Your task to perform on an android device: Go to Wikipedia Image 0: 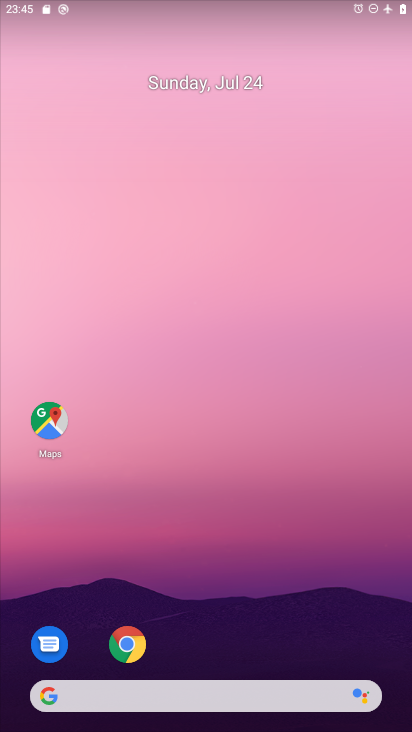
Step 0: click (128, 639)
Your task to perform on an android device: Go to Wikipedia Image 1: 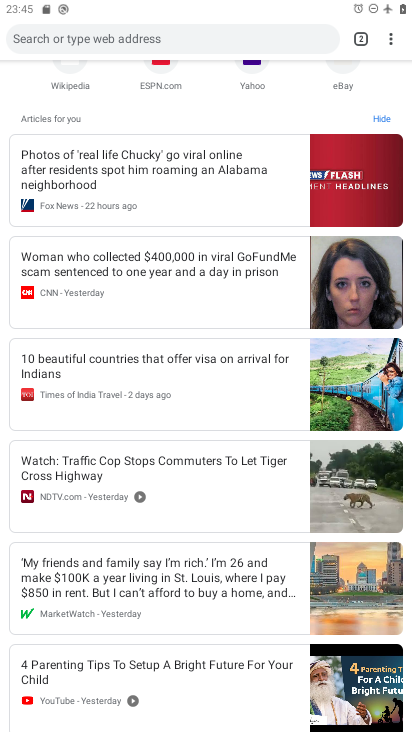
Step 1: click (164, 36)
Your task to perform on an android device: Go to Wikipedia Image 2: 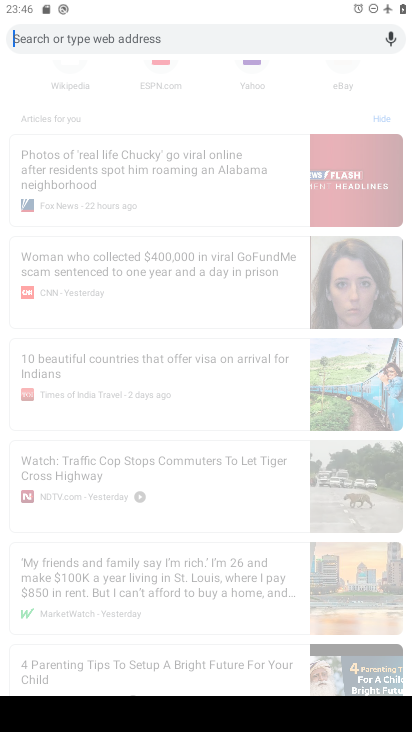
Step 2: type "wikipedia"
Your task to perform on an android device: Go to Wikipedia Image 3: 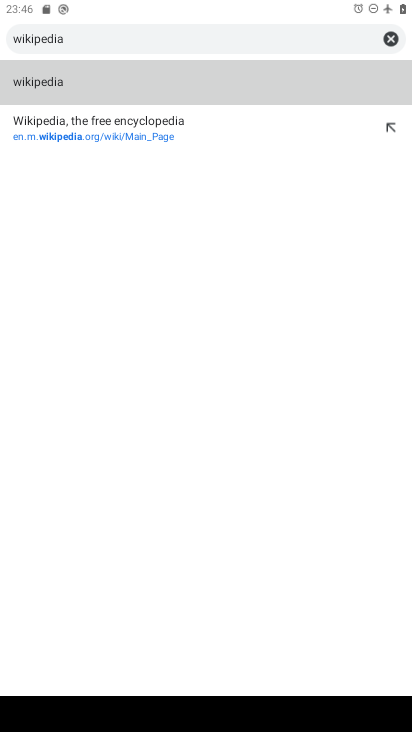
Step 3: click (52, 77)
Your task to perform on an android device: Go to Wikipedia Image 4: 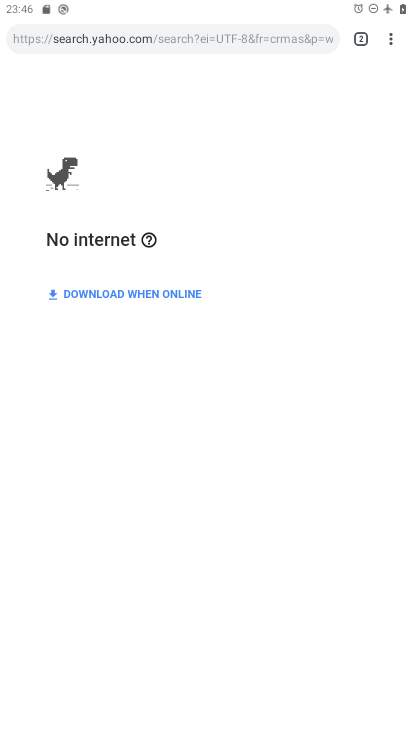
Step 4: task complete